Your task to perform on an android device: open chrome privacy settings Image 0: 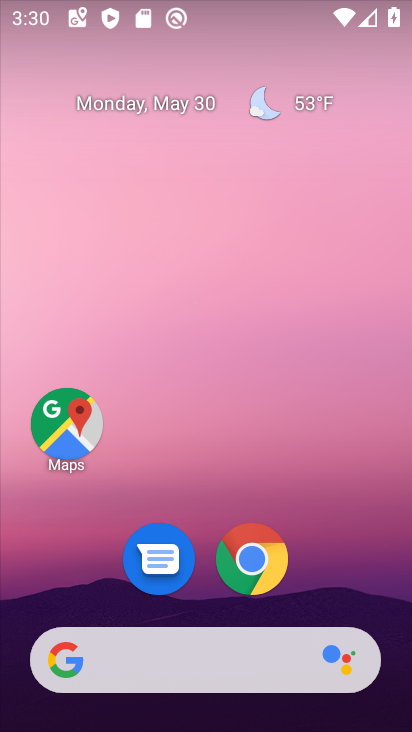
Step 0: drag from (245, 717) to (227, 104)
Your task to perform on an android device: open chrome privacy settings Image 1: 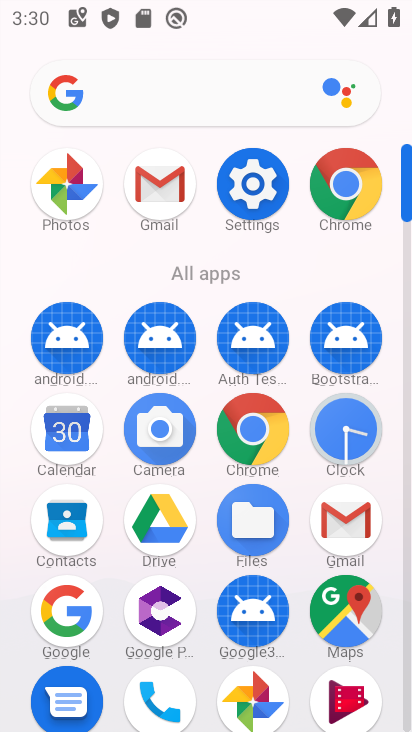
Step 1: click (255, 417)
Your task to perform on an android device: open chrome privacy settings Image 2: 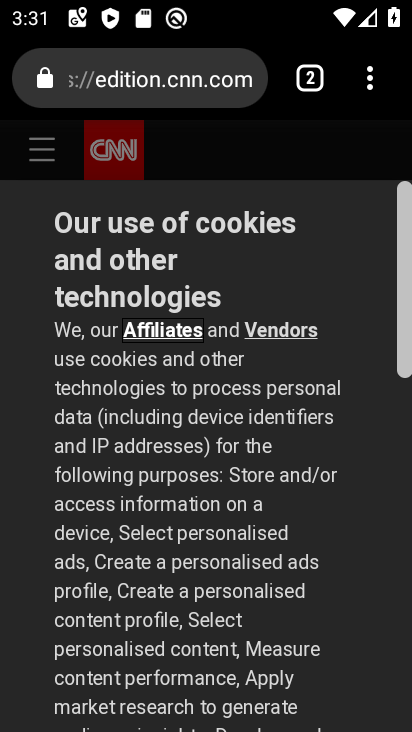
Step 2: click (370, 90)
Your task to perform on an android device: open chrome privacy settings Image 3: 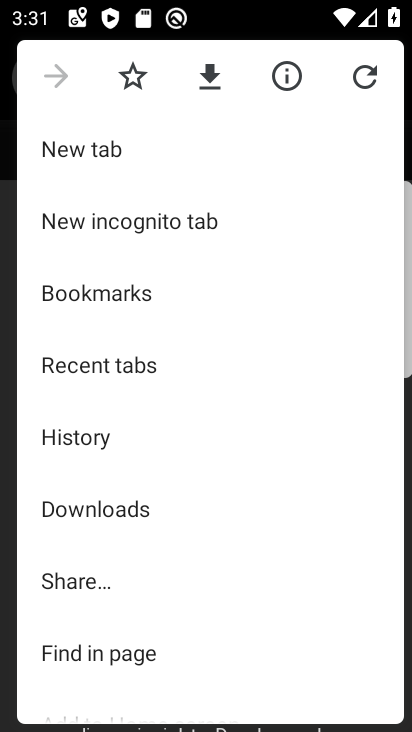
Step 3: drag from (121, 673) to (118, 254)
Your task to perform on an android device: open chrome privacy settings Image 4: 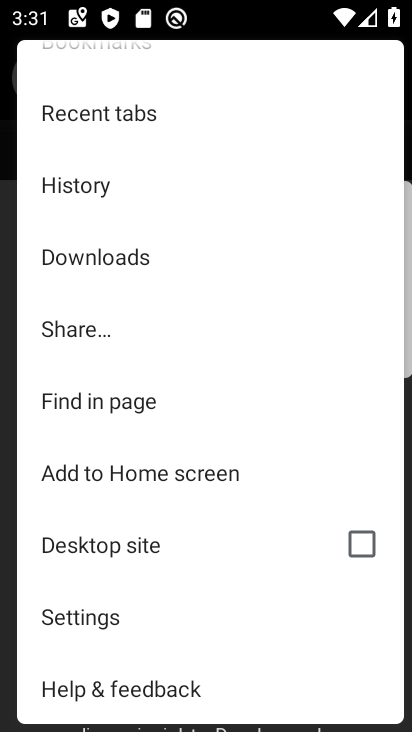
Step 4: click (108, 621)
Your task to perform on an android device: open chrome privacy settings Image 5: 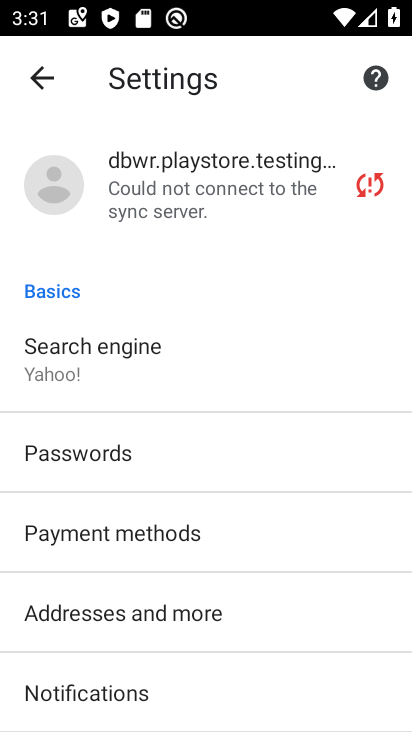
Step 5: drag from (156, 682) to (142, 269)
Your task to perform on an android device: open chrome privacy settings Image 6: 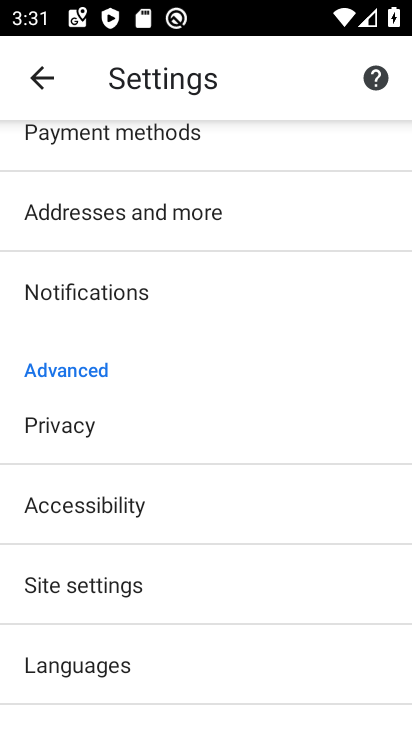
Step 6: drag from (152, 676) to (151, 281)
Your task to perform on an android device: open chrome privacy settings Image 7: 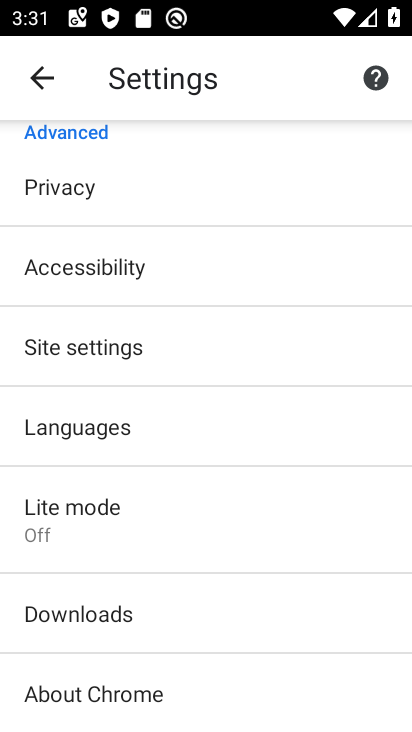
Step 7: click (68, 190)
Your task to perform on an android device: open chrome privacy settings Image 8: 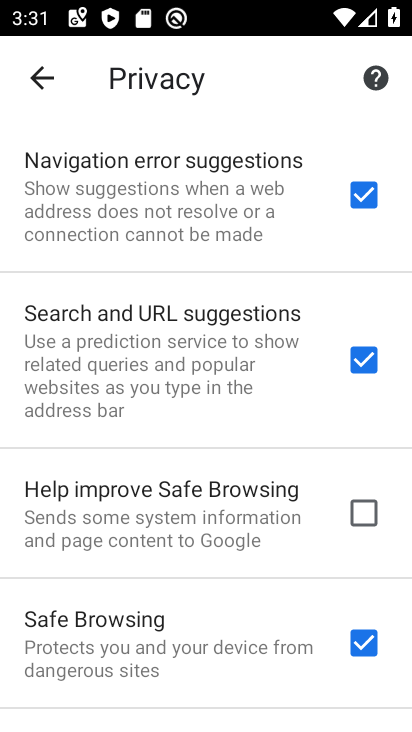
Step 8: task complete